Your task to perform on an android device: turn on airplane mode Image 0: 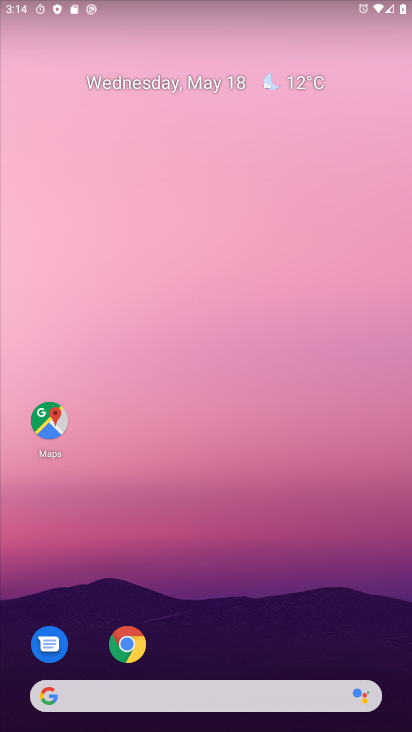
Step 0: drag from (392, 679) to (283, 148)
Your task to perform on an android device: turn on airplane mode Image 1: 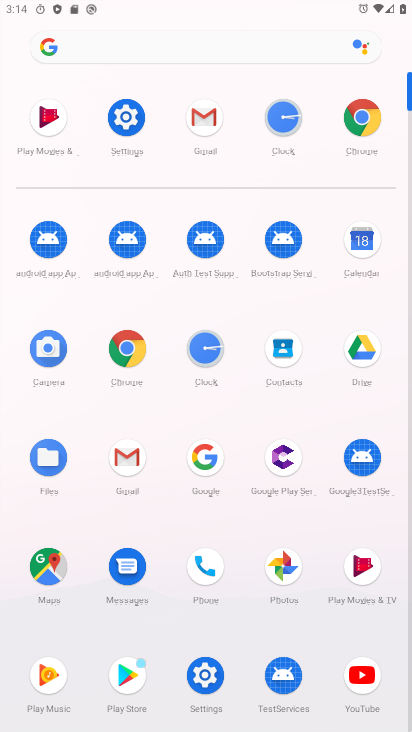
Step 1: click (132, 121)
Your task to perform on an android device: turn on airplane mode Image 2: 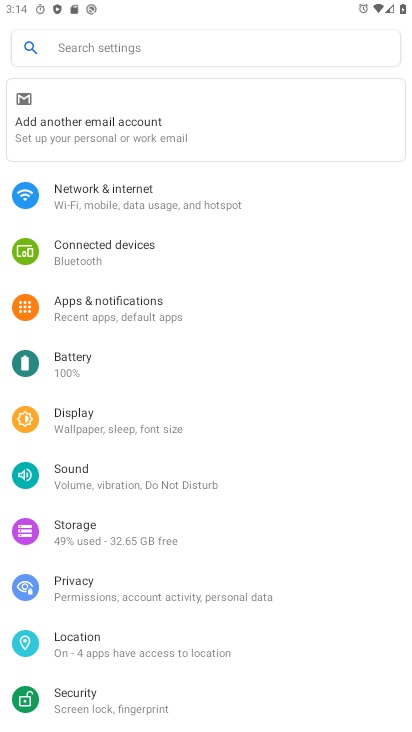
Step 2: click (99, 190)
Your task to perform on an android device: turn on airplane mode Image 3: 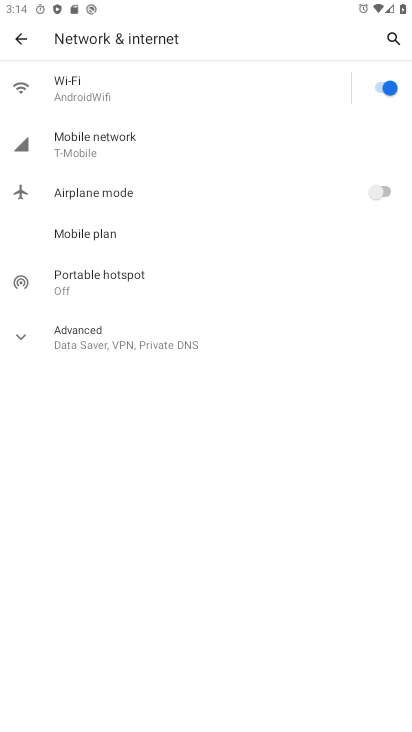
Step 3: click (376, 190)
Your task to perform on an android device: turn on airplane mode Image 4: 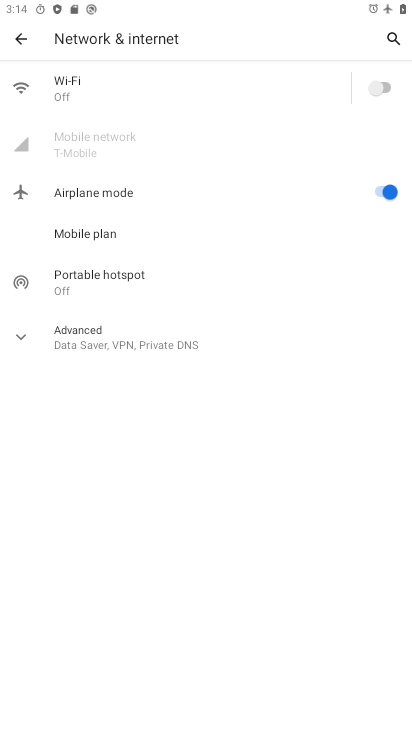
Step 4: task complete